Your task to perform on an android device: Open Yahoo.com Image 0: 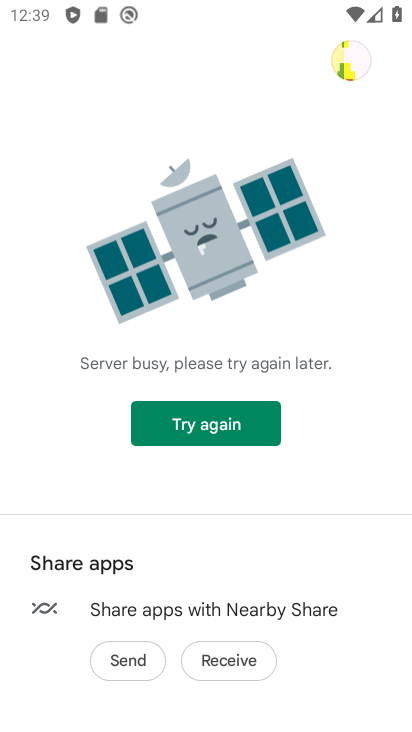
Step 0: press home button
Your task to perform on an android device: Open Yahoo.com Image 1: 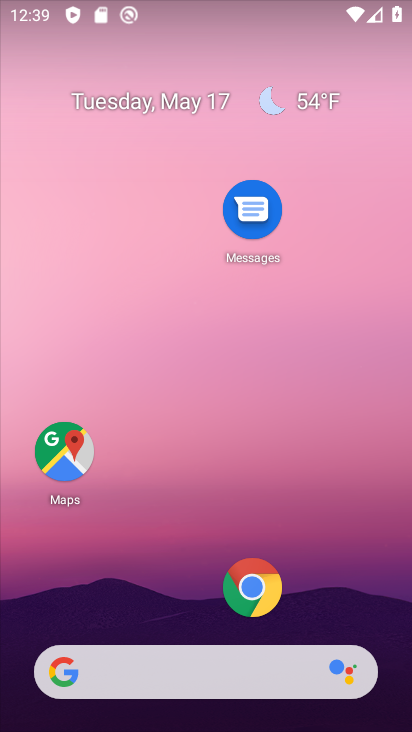
Step 1: click (244, 597)
Your task to perform on an android device: Open Yahoo.com Image 2: 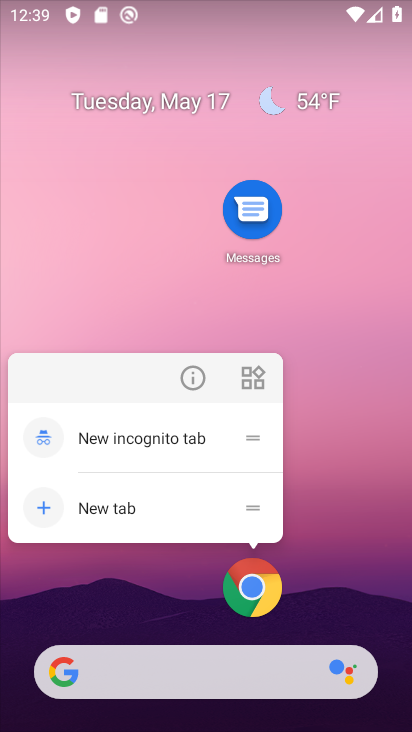
Step 2: click (253, 561)
Your task to perform on an android device: Open Yahoo.com Image 3: 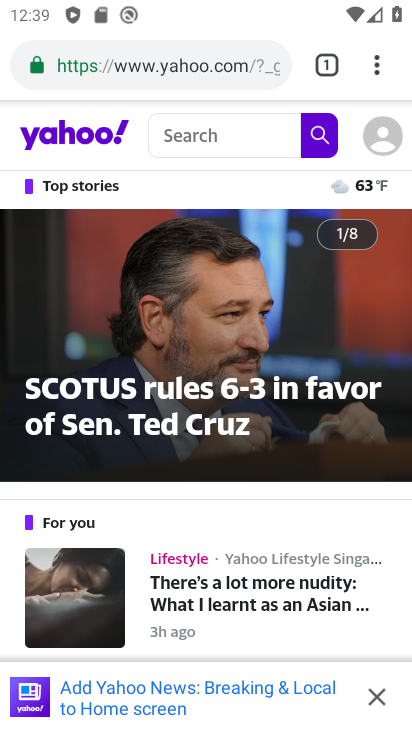
Step 3: task complete